Your task to perform on an android device: Open accessibility settings Image 0: 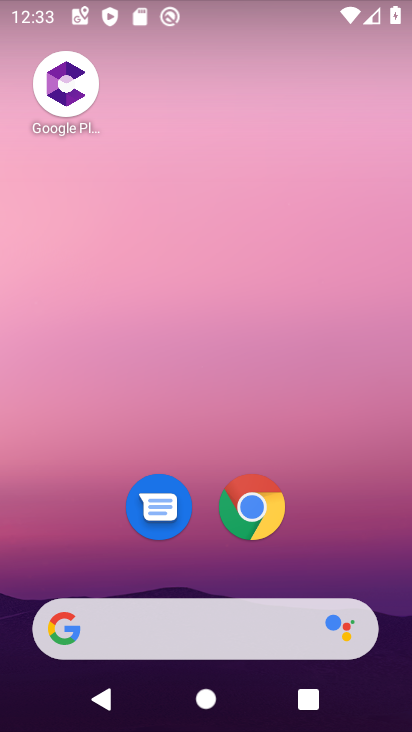
Step 0: drag from (354, 535) to (198, 2)
Your task to perform on an android device: Open accessibility settings Image 1: 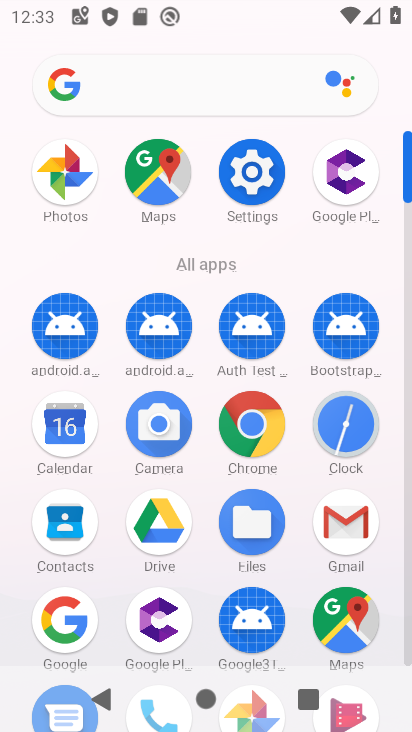
Step 1: click (249, 162)
Your task to perform on an android device: Open accessibility settings Image 2: 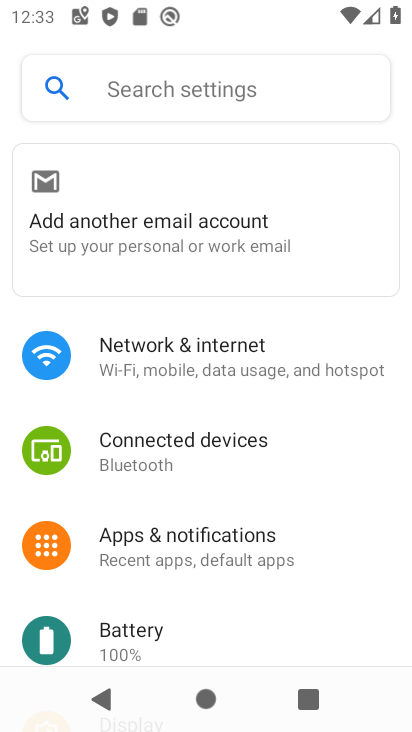
Step 2: drag from (226, 558) to (229, 86)
Your task to perform on an android device: Open accessibility settings Image 3: 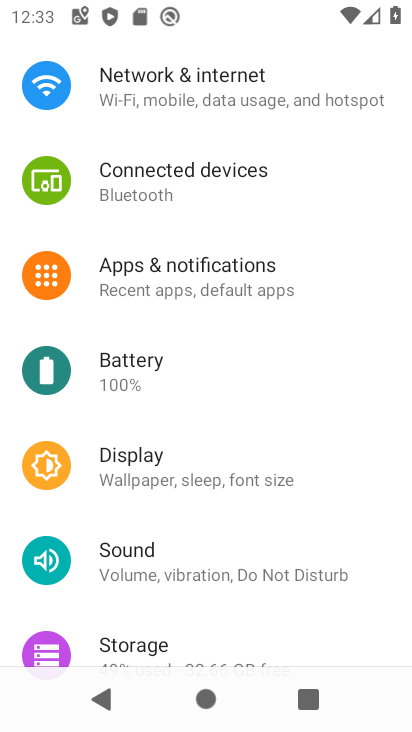
Step 3: drag from (232, 566) to (230, 115)
Your task to perform on an android device: Open accessibility settings Image 4: 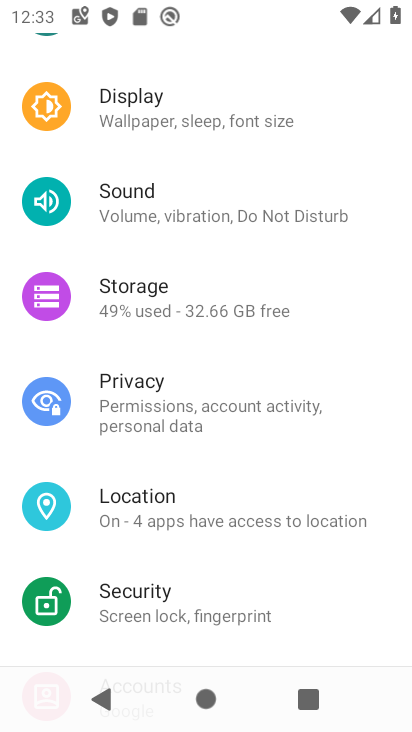
Step 4: drag from (238, 584) to (247, 164)
Your task to perform on an android device: Open accessibility settings Image 5: 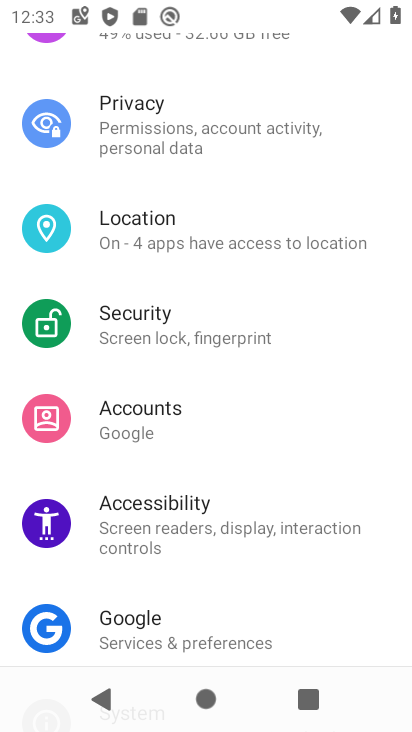
Step 5: click (200, 530)
Your task to perform on an android device: Open accessibility settings Image 6: 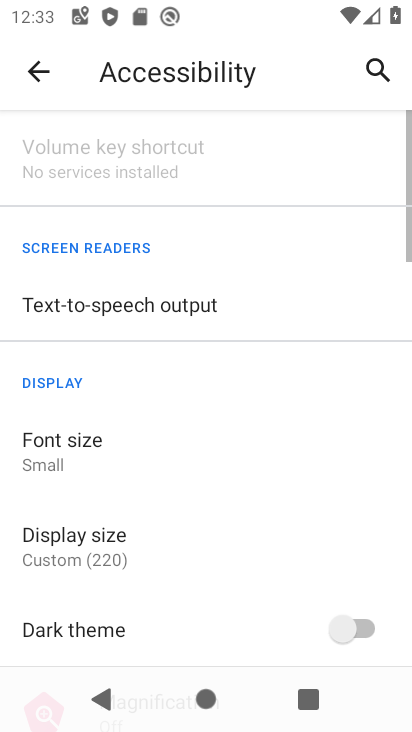
Step 6: task complete